Your task to perform on an android device: turn notification dots off Image 0: 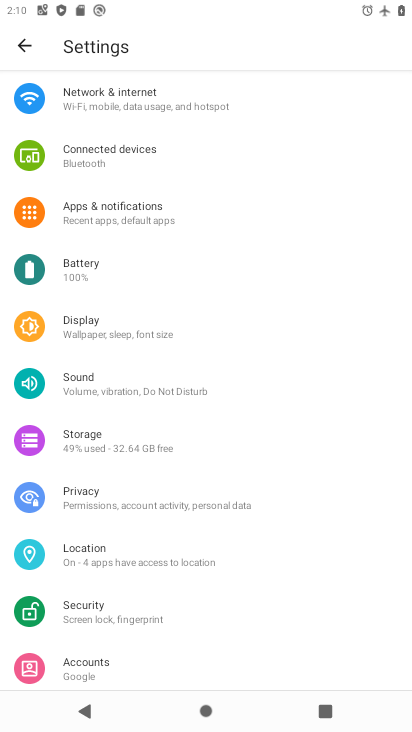
Step 0: drag from (165, 135) to (167, 522)
Your task to perform on an android device: turn notification dots off Image 1: 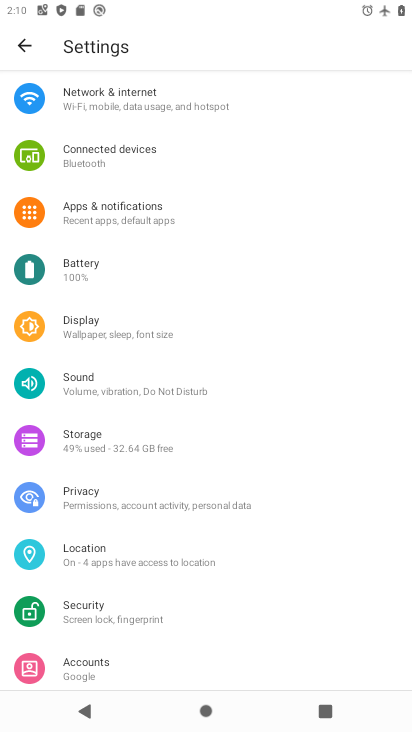
Step 1: drag from (155, 112) to (138, 596)
Your task to perform on an android device: turn notification dots off Image 2: 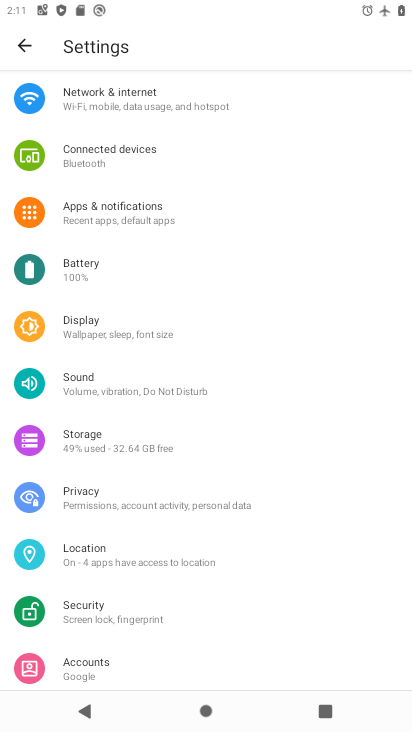
Step 2: drag from (291, 520) to (132, 691)
Your task to perform on an android device: turn notification dots off Image 3: 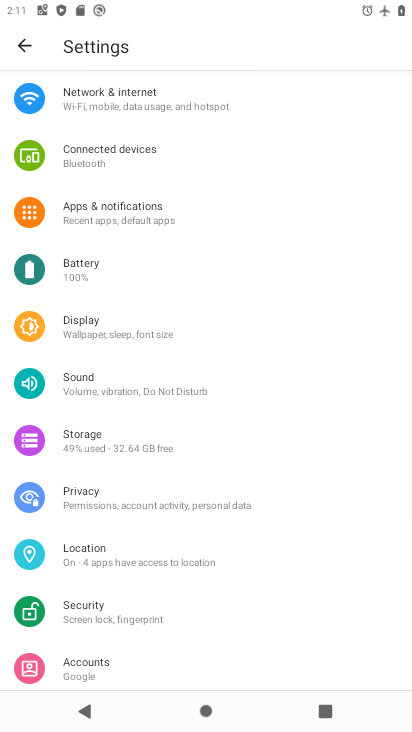
Step 3: drag from (141, 146) to (150, 648)
Your task to perform on an android device: turn notification dots off Image 4: 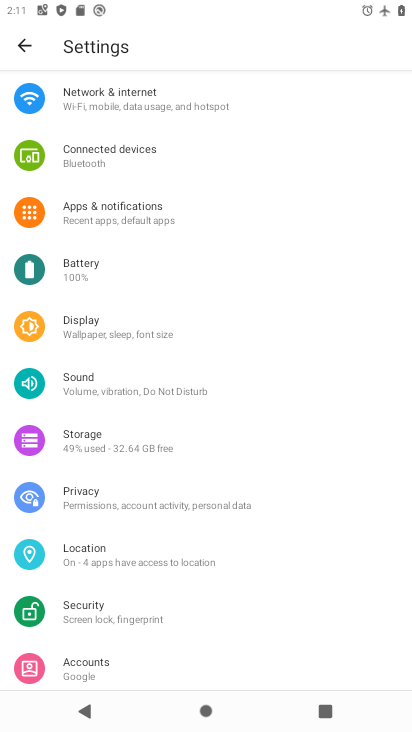
Step 4: drag from (228, 361) to (254, 594)
Your task to perform on an android device: turn notification dots off Image 5: 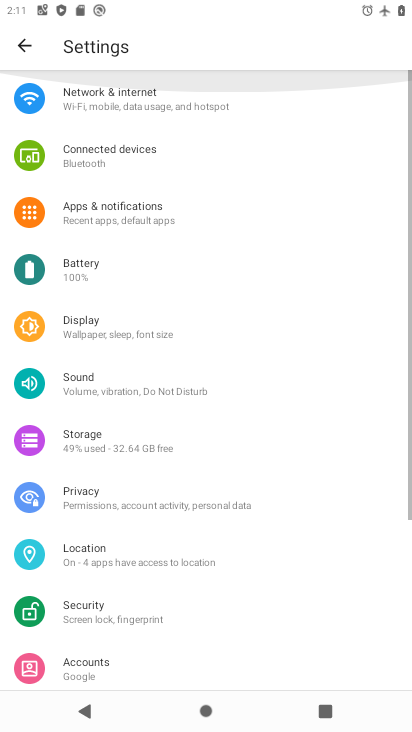
Step 5: drag from (95, 196) to (148, 530)
Your task to perform on an android device: turn notification dots off Image 6: 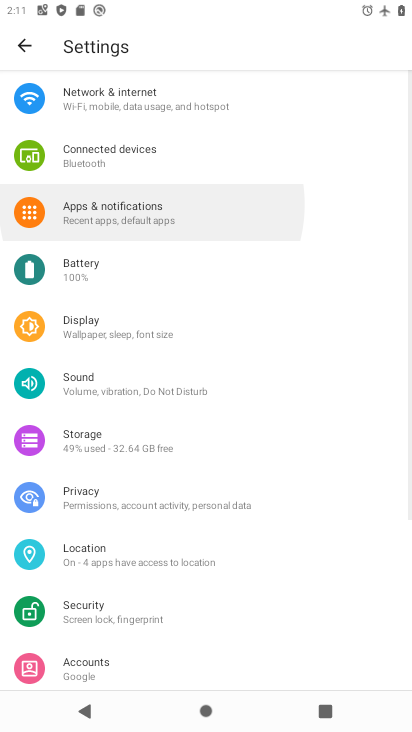
Step 6: drag from (123, 277) to (129, 477)
Your task to perform on an android device: turn notification dots off Image 7: 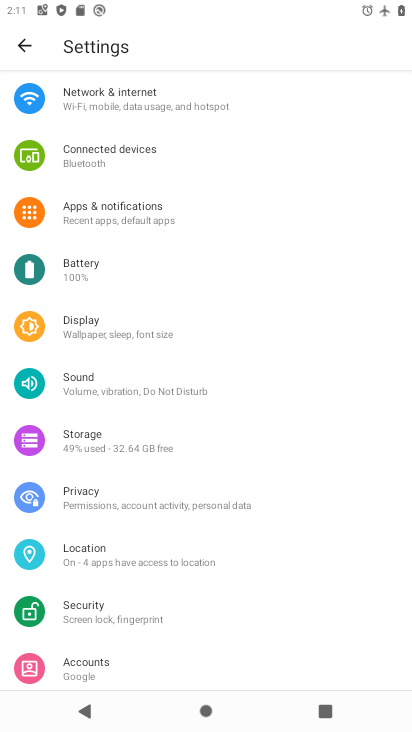
Step 7: click (103, 84)
Your task to perform on an android device: turn notification dots off Image 8: 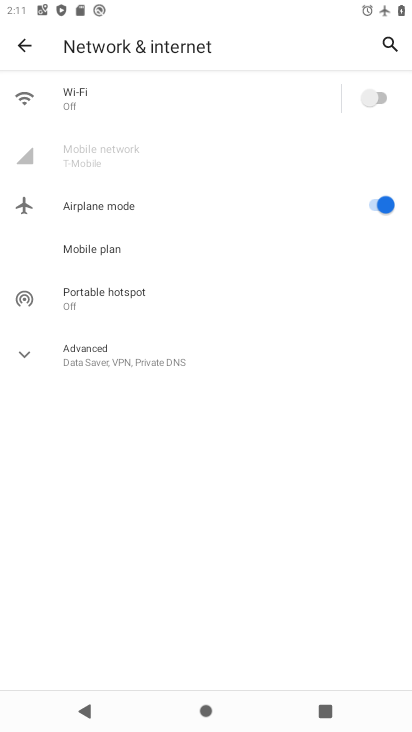
Step 8: click (20, 43)
Your task to perform on an android device: turn notification dots off Image 9: 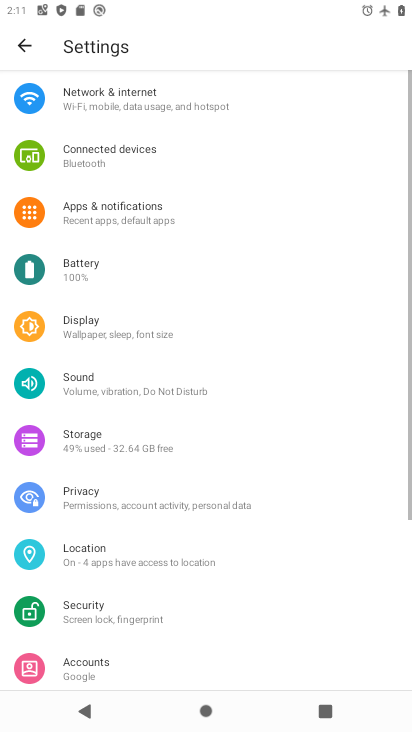
Step 9: drag from (119, 172) to (179, 578)
Your task to perform on an android device: turn notification dots off Image 10: 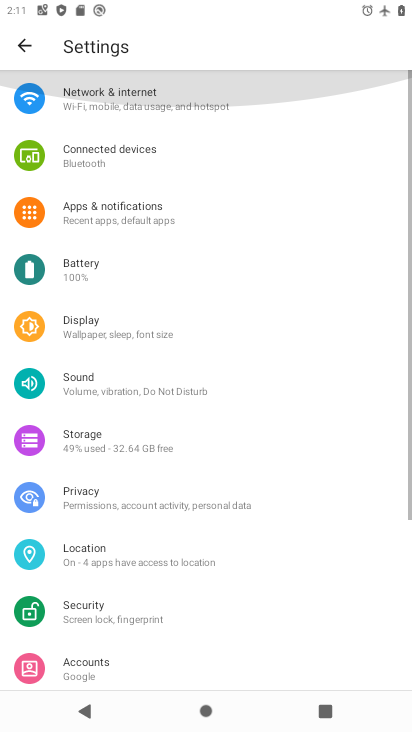
Step 10: click (224, 458)
Your task to perform on an android device: turn notification dots off Image 11: 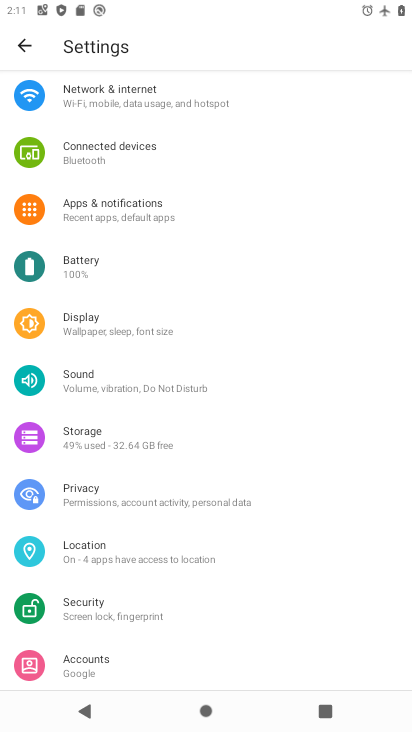
Step 11: click (26, 50)
Your task to perform on an android device: turn notification dots off Image 12: 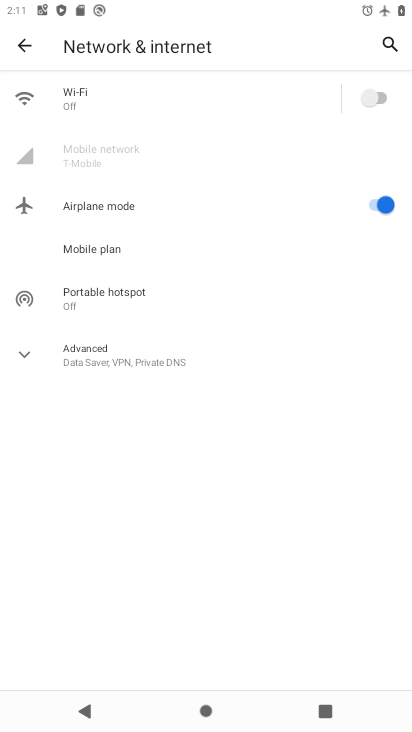
Step 12: click (39, 40)
Your task to perform on an android device: turn notification dots off Image 13: 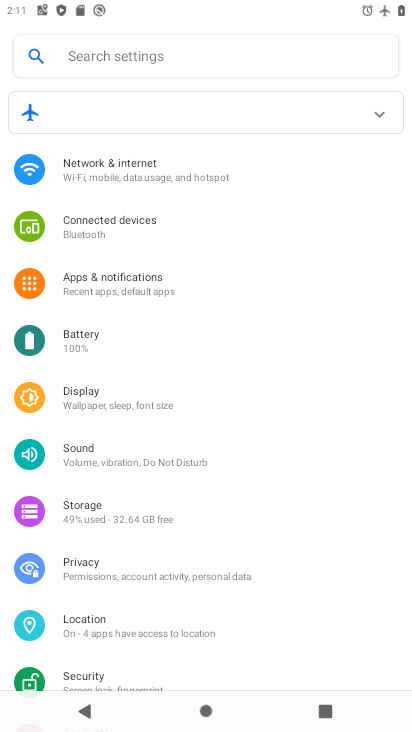
Step 13: click (143, 49)
Your task to perform on an android device: turn notification dots off Image 14: 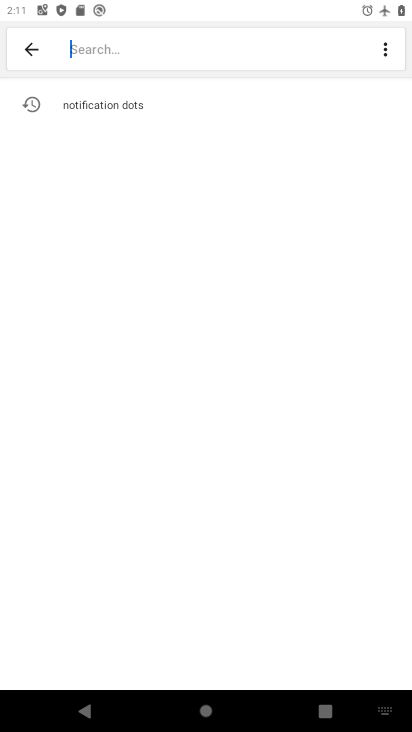
Step 14: click (121, 96)
Your task to perform on an android device: turn notification dots off Image 15: 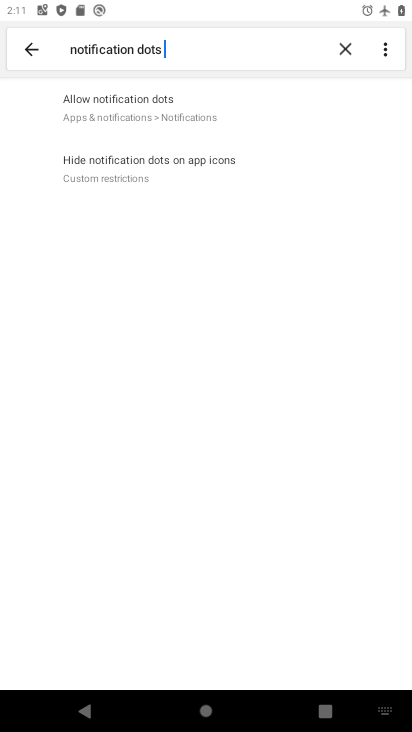
Step 15: click (216, 115)
Your task to perform on an android device: turn notification dots off Image 16: 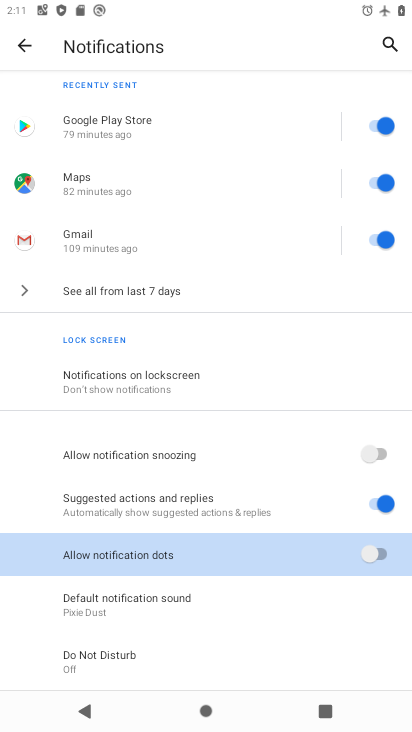
Step 16: task complete